Your task to perform on an android device: Go to internet settings Image 0: 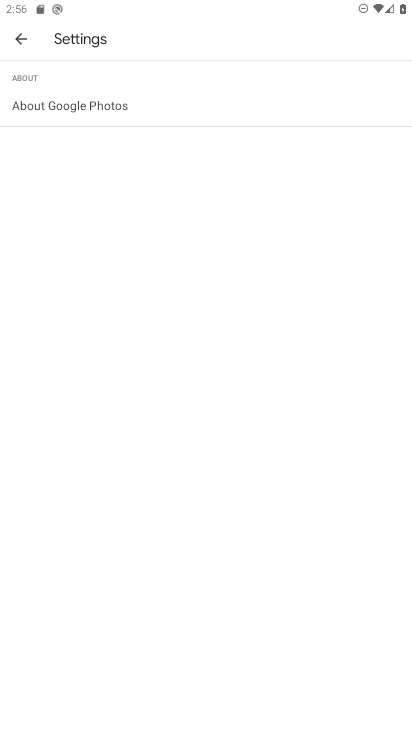
Step 0: press home button
Your task to perform on an android device: Go to internet settings Image 1: 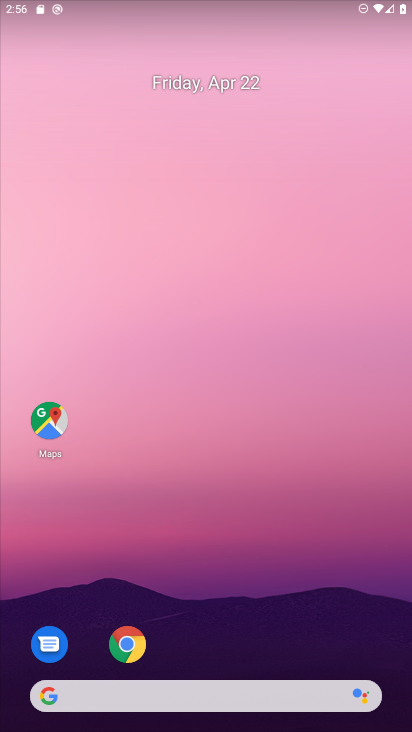
Step 1: drag from (247, 597) to (282, 95)
Your task to perform on an android device: Go to internet settings Image 2: 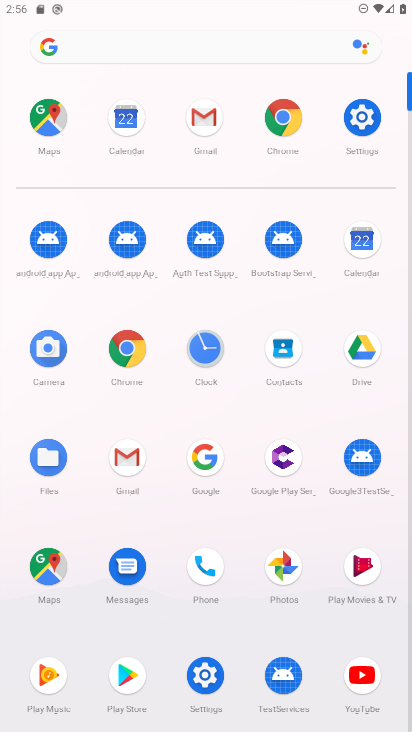
Step 2: click (357, 115)
Your task to perform on an android device: Go to internet settings Image 3: 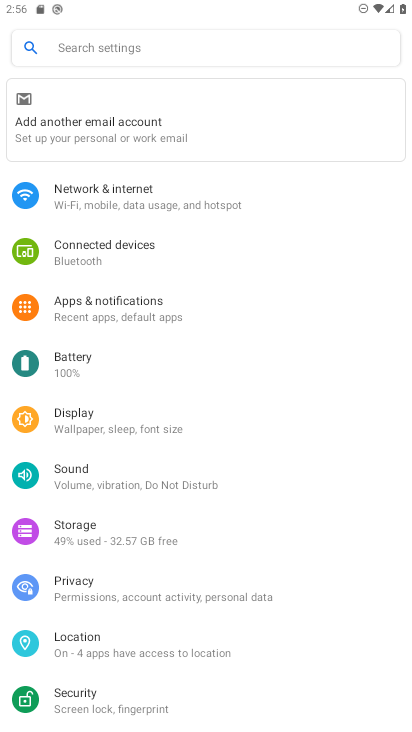
Step 3: click (131, 207)
Your task to perform on an android device: Go to internet settings Image 4: 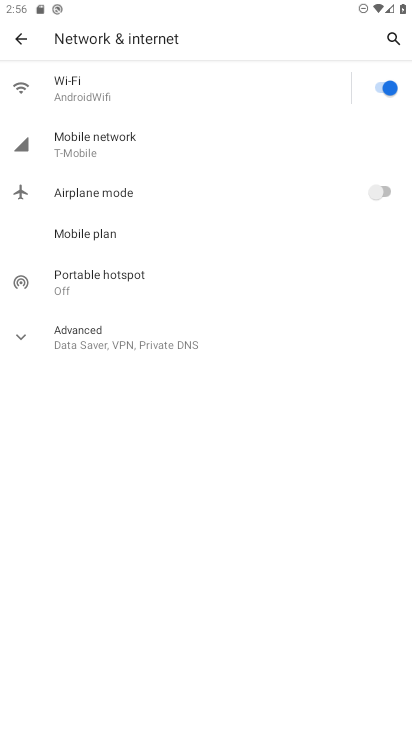
Step 4: task complete